Your task to perform on an android device: check android version Image 0: 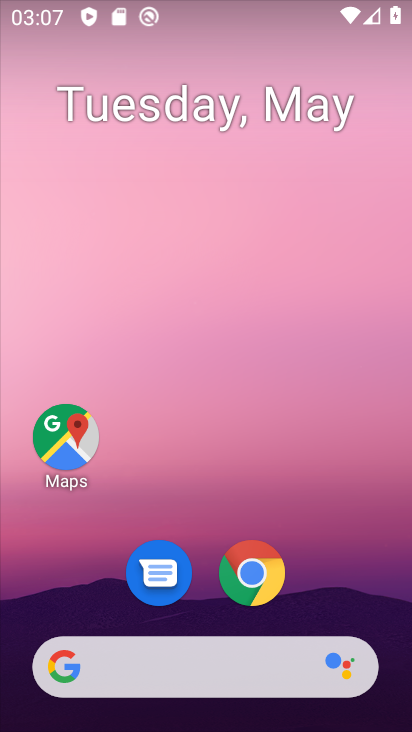
Step 0: drag from (207, 600) to (254, 115)
Your task to perform on an android device: check android version Image 1: 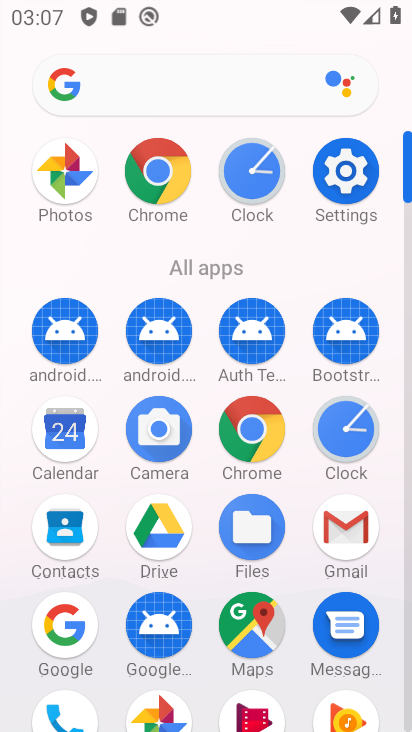
Step 1: click (342, 163)
Your task to perform on an android device: check android version Image 2: 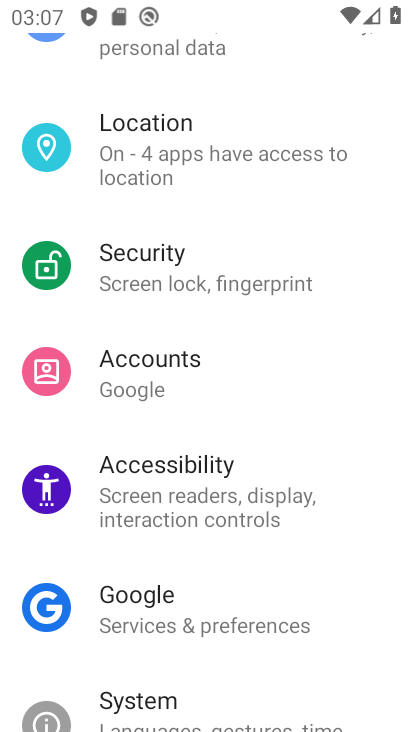
Step 2: drag from (152, 657) to (210, 122)
Your task to perform on an android device: check android version Image 3: 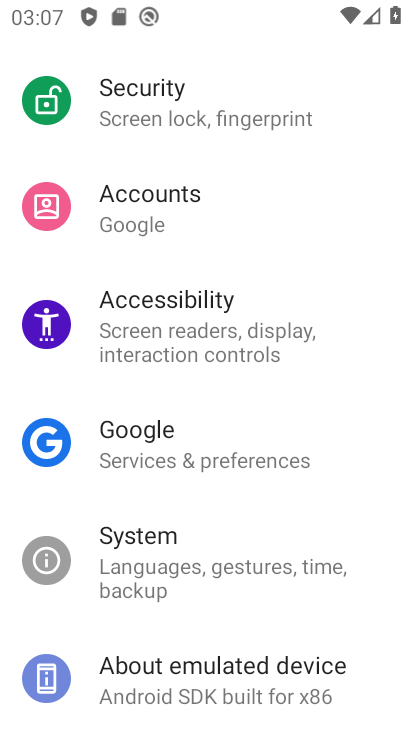
Step 3: click (146, 680)
Your task to perform on an android device: check android version Image 4: 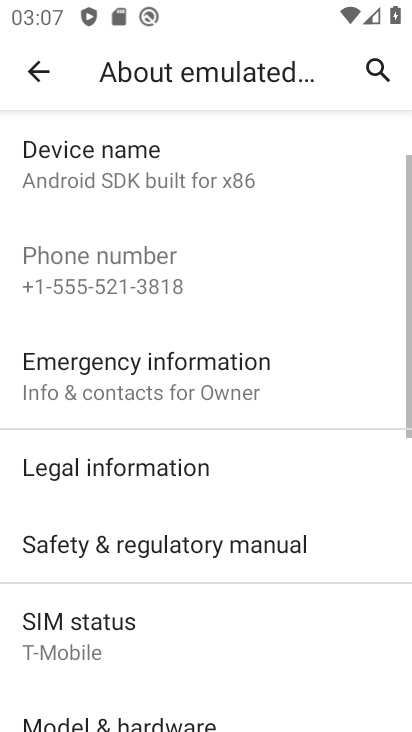
Step 4: task complete